Your task to perform on an android device: Search for vegetarian restaurants on Maps Image 0: 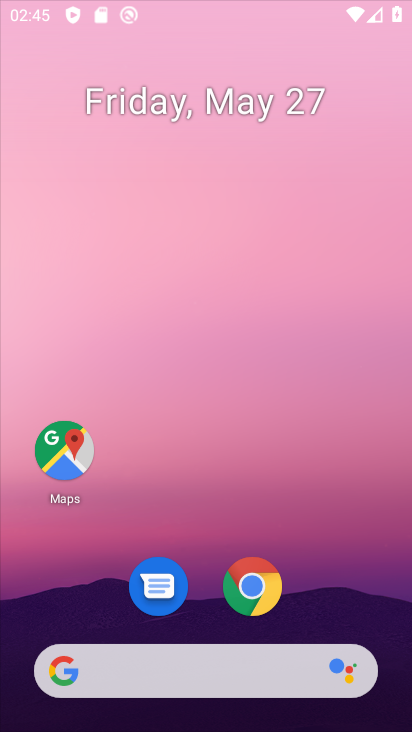
Step 0: press home button
Your task to perform on an android device: Search for vegetarian restaurants on Maps Image 1: 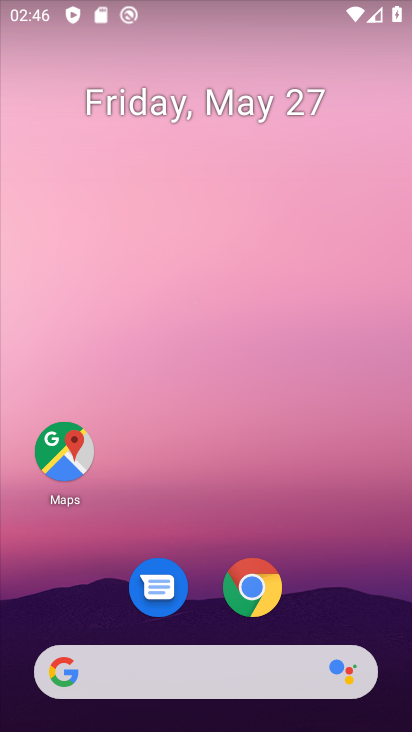
Step 1: click (54, 467)
Your task to perform on an android device: Search for vegetarian restaurants on Maps Image 2: 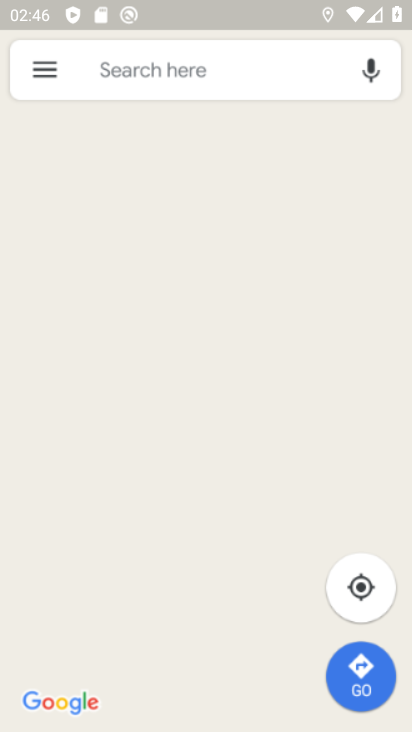
Step 2: click (194, 74)
Your task to perform on an android device: Search for vegetarian restaurants on Maps Image 3: 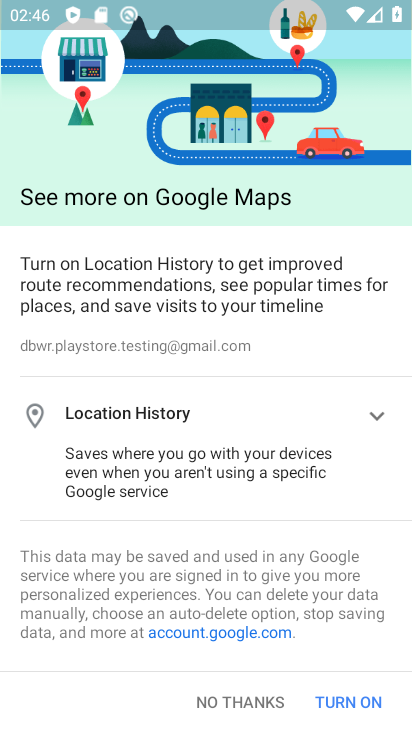
Step 3: click (269, 700)
Your task to perform on an android device: Search for vegetarian restaurants on Maps Image 4: 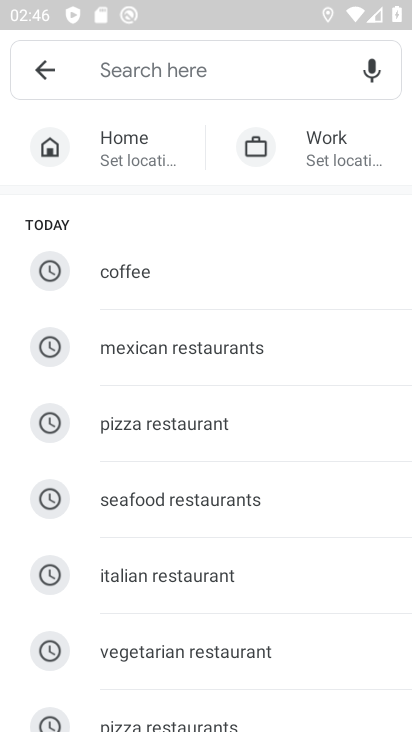
Step 4: click (201, 656)
Your task to perform on an android device: Search for vegetarian restaurants on Maps Image 5: 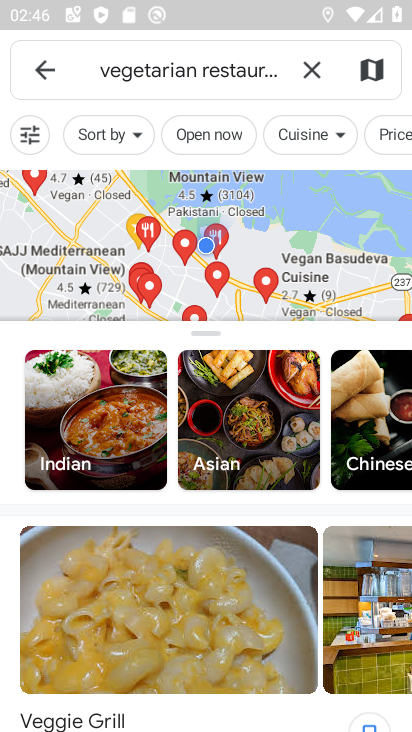
Step 5: task complete